Your task to perform on an android device: empty trash in the gmail app Image 0: 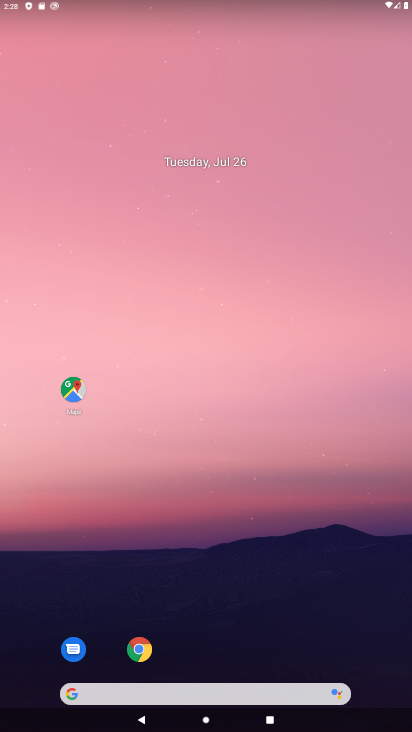
Step 0: drag from (194, 662) to (212, 10)
Your task to perform on an android device: empty trash in the gmail app Image 1: 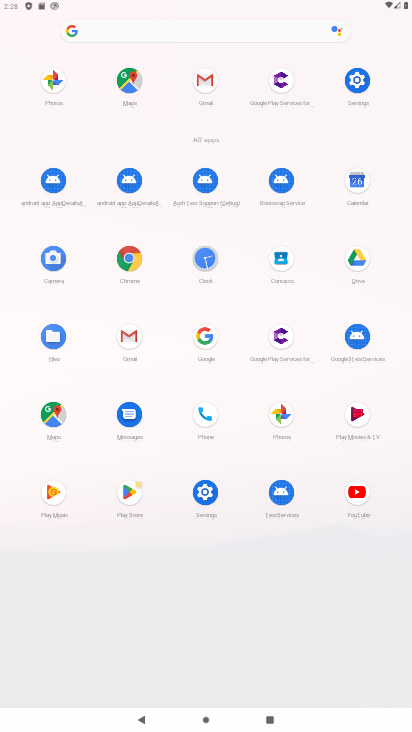
Step 1: click (212, 125)
Your task to perform on an android device: empty trash in the gmail app Image 2: 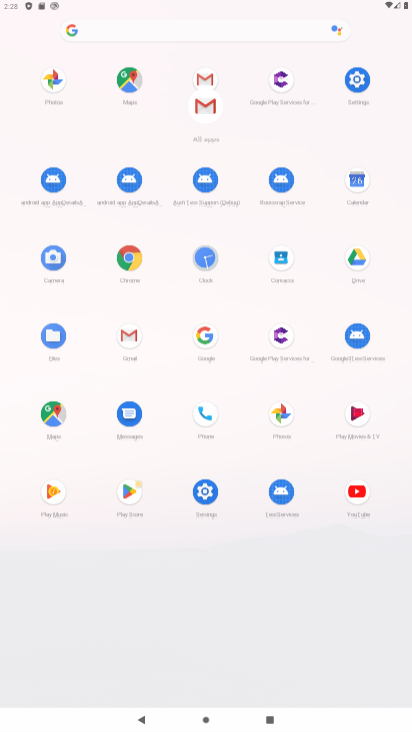
Step 2: click (208, 101)
Your task to perform on an android device: empty trash in the gmail app Image 3: 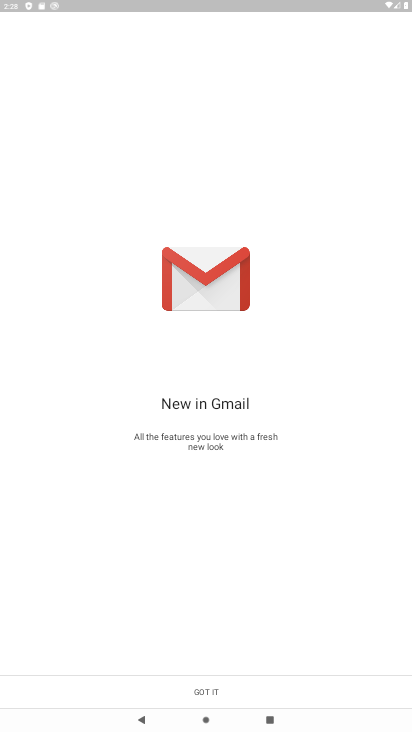
Step 3: click (213, 694)
Your task to perform on an android device: empty trash in the gmail app Image 4: 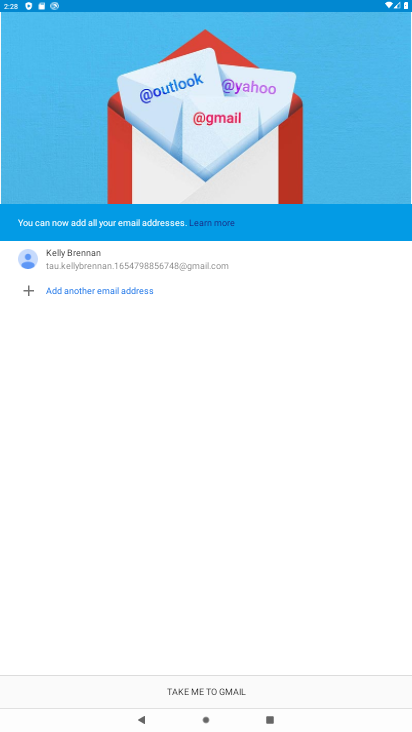
Step 4: click (177, 703)
Your task to perform on an android device: empty trash in the gmail app Image 5: 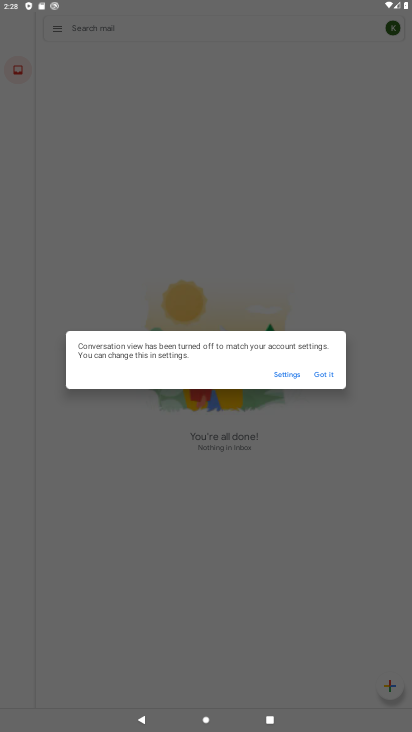
Step 5: click (311, 374)
Your task to perform on an android device: empty trash in the gmail app Image 6: 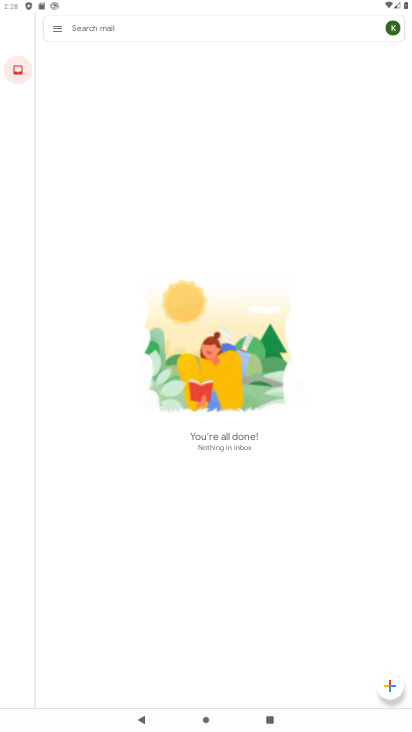
Step 6: click (54, 25)
Your task to perform on an android device: empty trash in the gmail app Image 7: 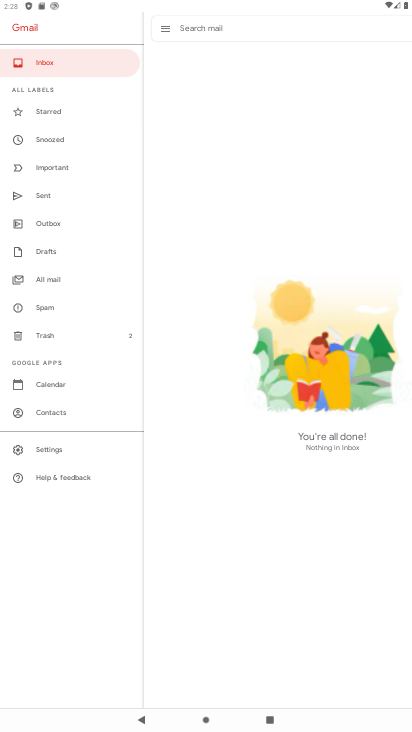
Step 7: click (62, 338)
Your task to perform on an android device: empty trash in the gmail app Image 8: 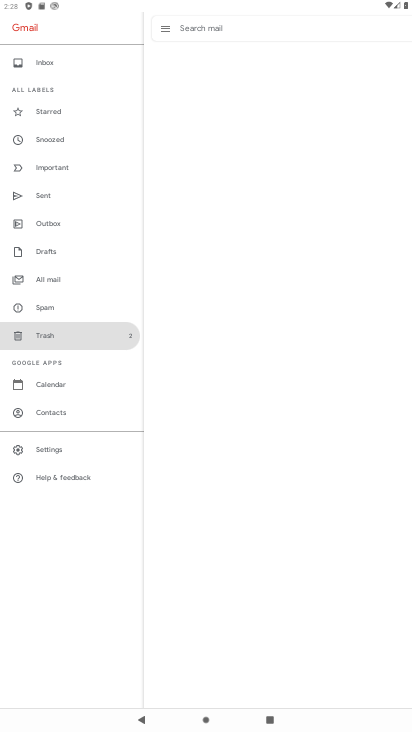
Step 8: click (62, 338)
Your task to perform on an android device: empty trash in the gmail app Image 9: 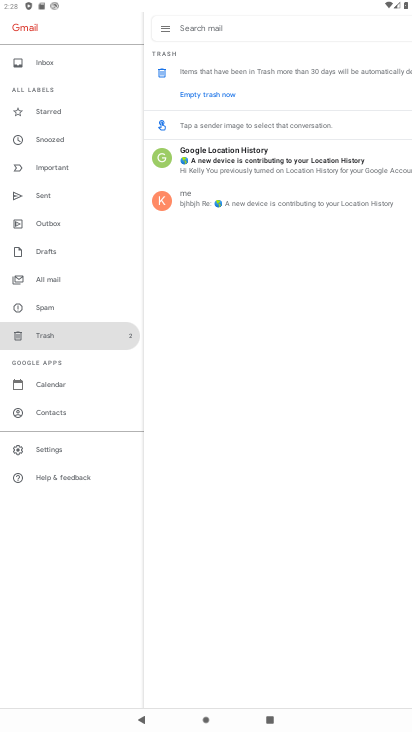
Step 9: click (236, 94)
Your task to perform on an android device: empty trash in the gmail app Image 10: 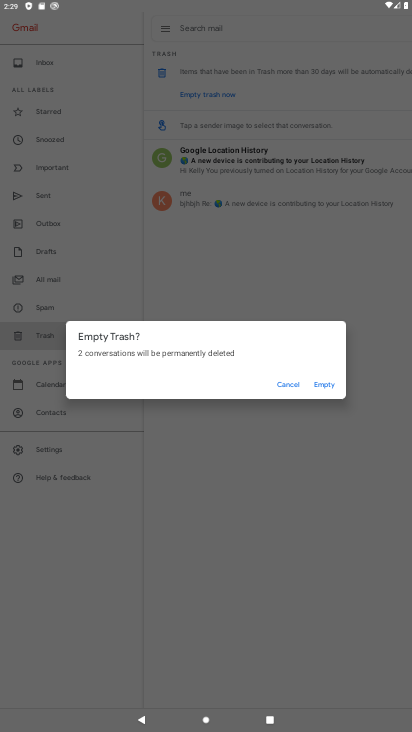
Step 10: click (315, 392)
Your task to perform on an android device: empty trash in the gmail app Image 11: 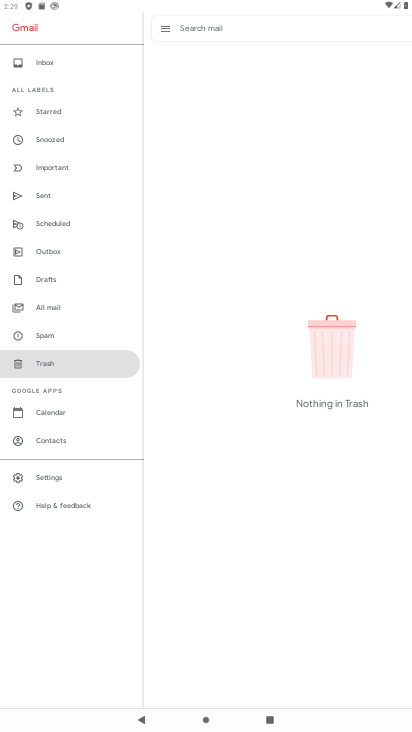
Step 11: task complete